Your task to perform on an android device: turn off location Image 0: 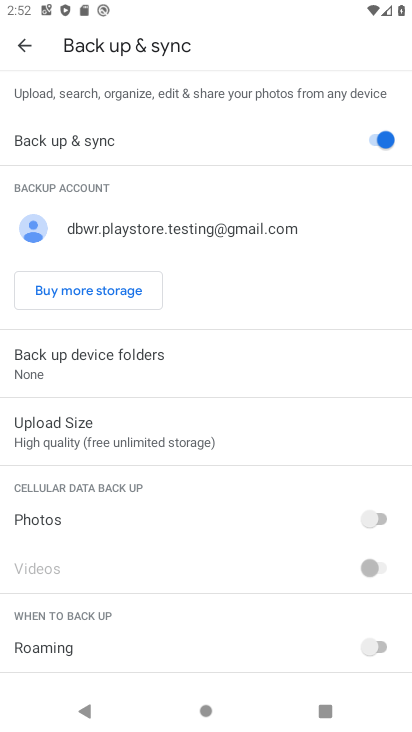
Step 0: press home button
Your task to perform on an android device: turn off location Image 1: 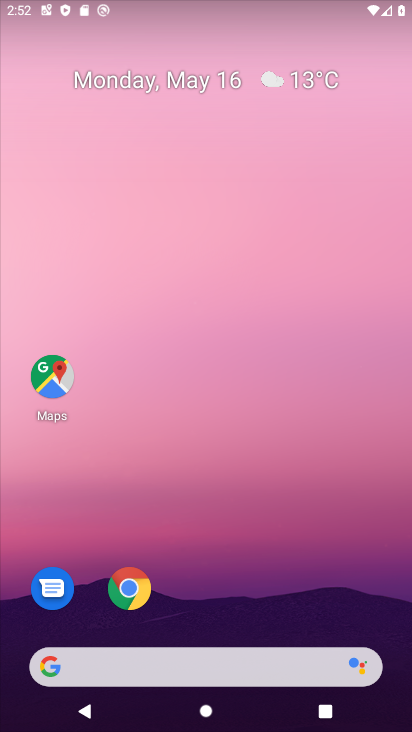
Step 1: drag from (293, 652) to (371, 4)
Your task to perform on an android device: turn off location Image 2: 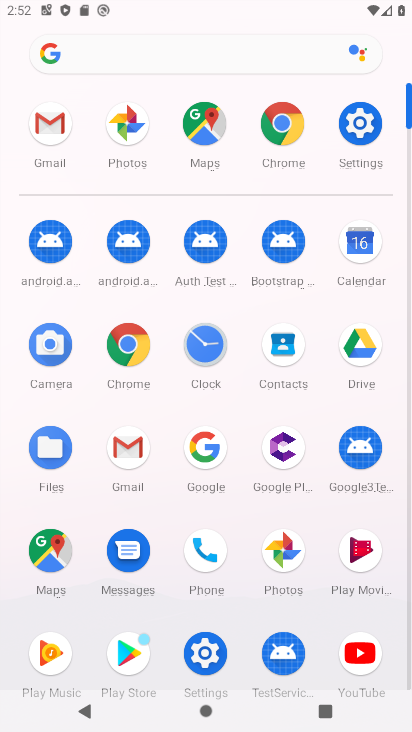
Step 2: click (356, 128)
Your task to perform on an android device: turn off location Image 3: 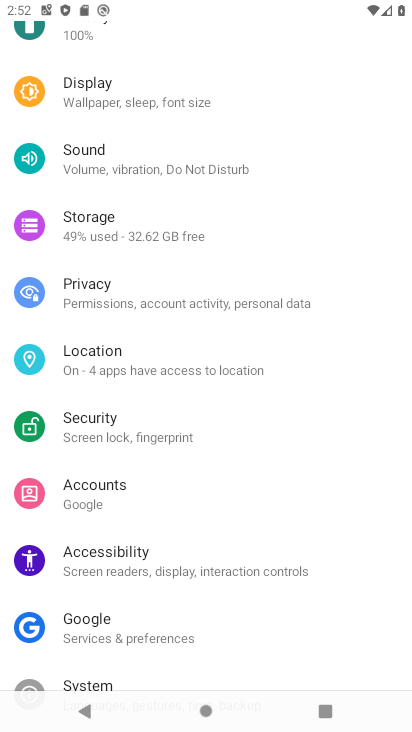
Step 3: click (176, 254)
Your task to perform on an android device: turn off location Image 4: 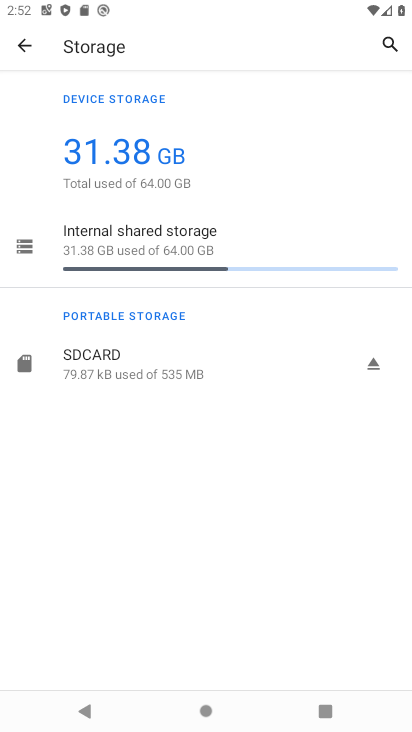
Step 4: press back button
Your task to perform on an android device: turn off location Image 5: 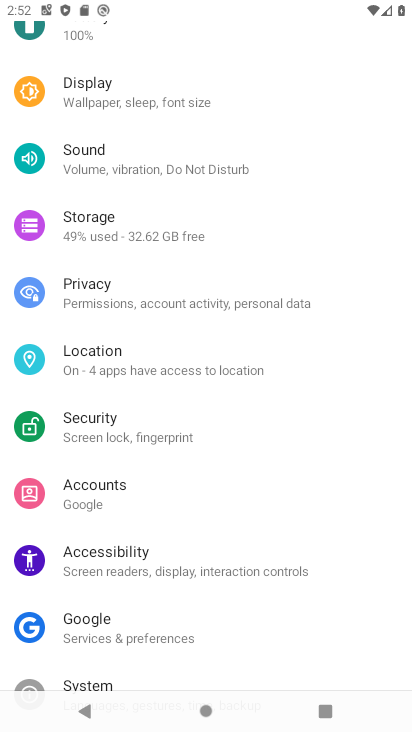
Step 5: click (116, 354)
Your task to perform on an android device: turn off location Image 6: 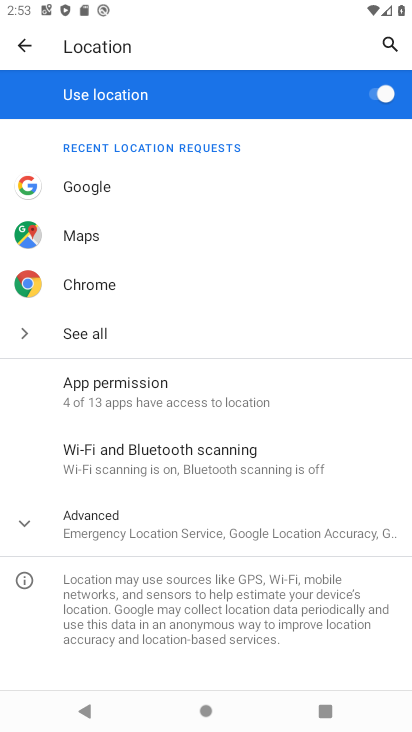
Step 6: click (374, 89)
Your task to perform on an android device: turn off location Image 7: 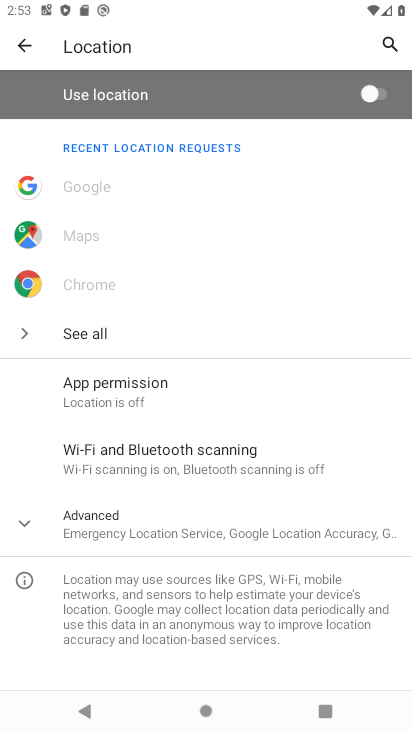
Step 7: task complete